Your task to perform on an android device: toggle airplane mode Image 0: 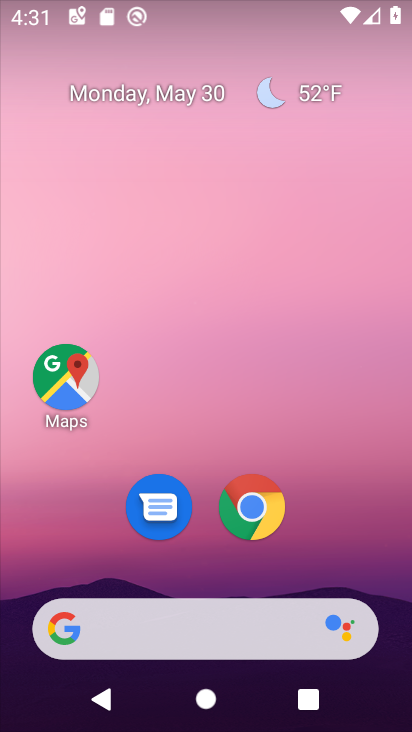
Step 0: click (264, 514)
Your task to perform on an android device: toggle airplane mode Image 1: 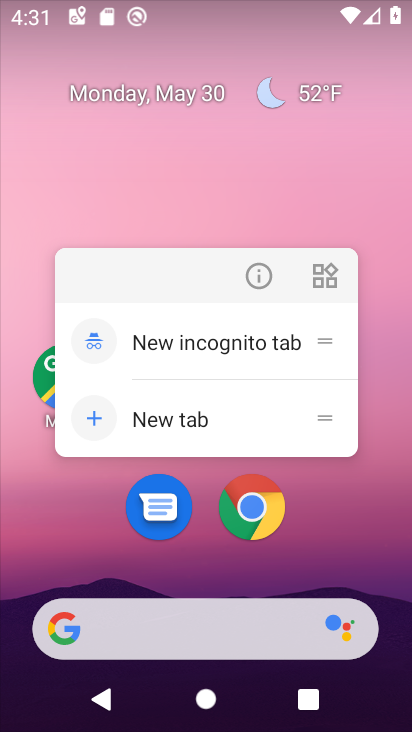
Step 1: click (250, 275)
Your task to perform on an android device: toggle airplane mode Image 2: 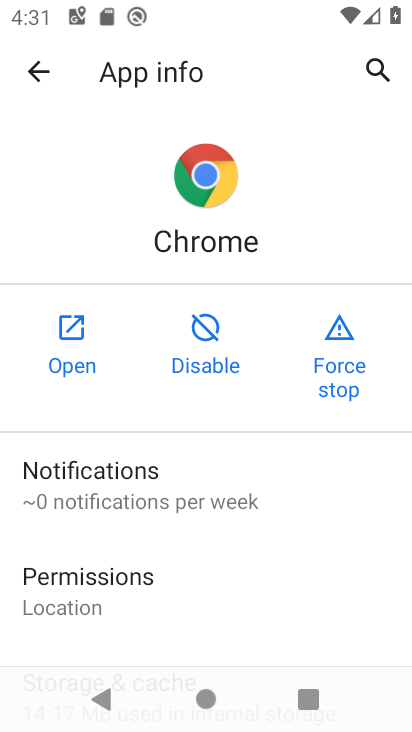
Step 2: press home button
Your task to perform on an android device: toggle airplane mode Image 3: 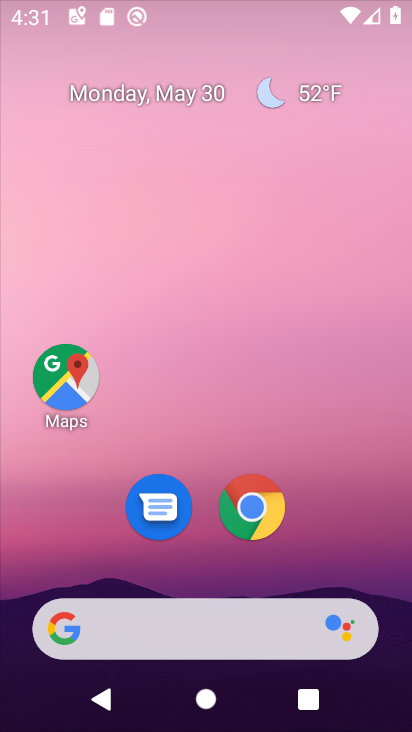
Step 3: drag from (190, 1) to (162, 521)
Your task to perform on an android device: toggle airplane mode Image 4: 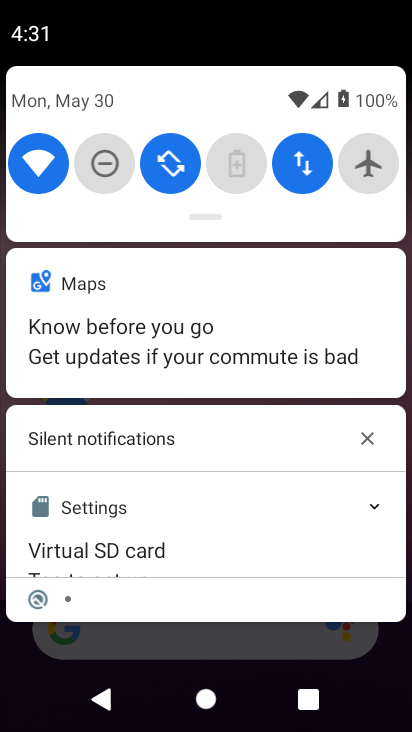
Step 4: drag from (225, 202) to (221, 586)
Your task to perform on an android device: toggle airplane mode Image 5: 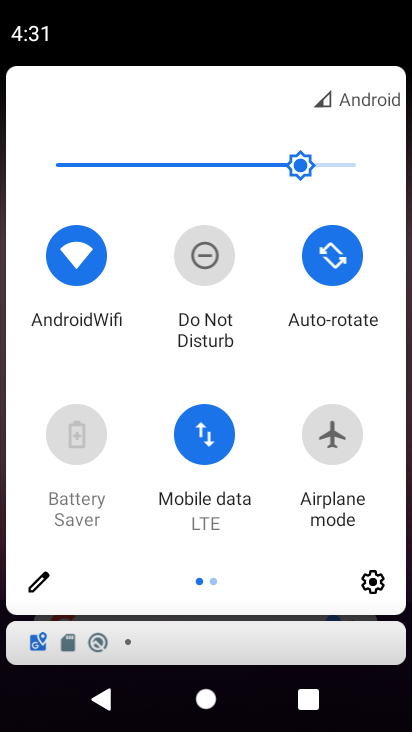
Step 5: click (330, 440)
Your task to perform on an android device: toggle airplane mode Image 6: 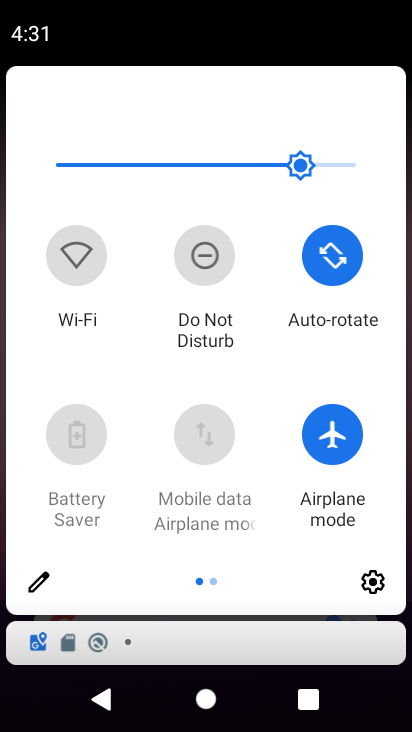
Step 6: task complete